Your task to perform on an android device: Show me the alarms in the clock app Image 0: 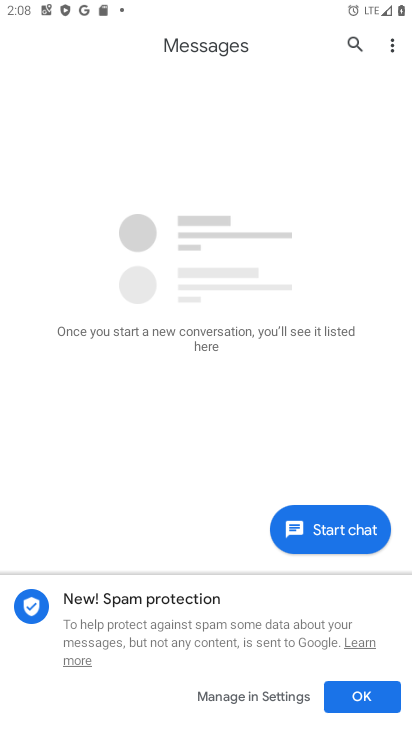
Step 0: press home button
Your task to perform on an android device: Show me the alarms in the clock app Image 1: 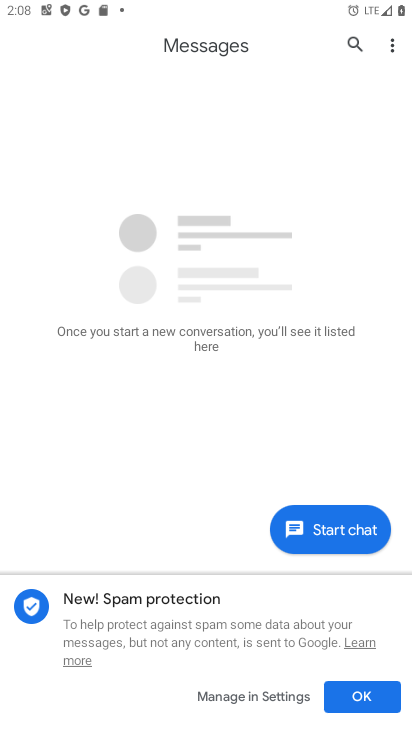
Step 1: click (170, 362)
Your task to perform on an android device: Show me the alarms in the clock app Image 2: 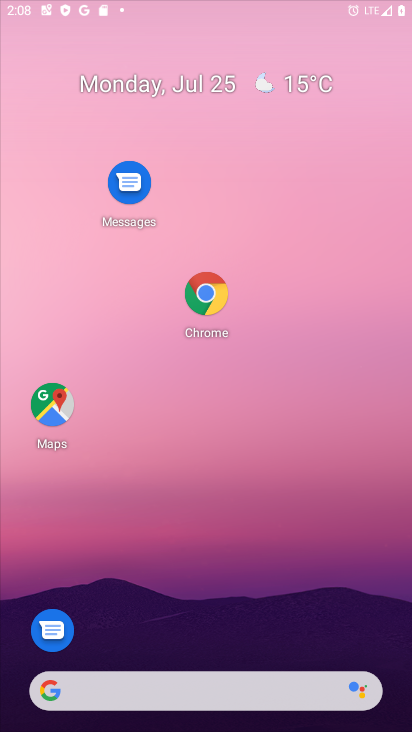
Step 2: drag from (255, 490) to (212, 185)
Your task to perform on an android device: Show me the alarms in the clock app Image 3: 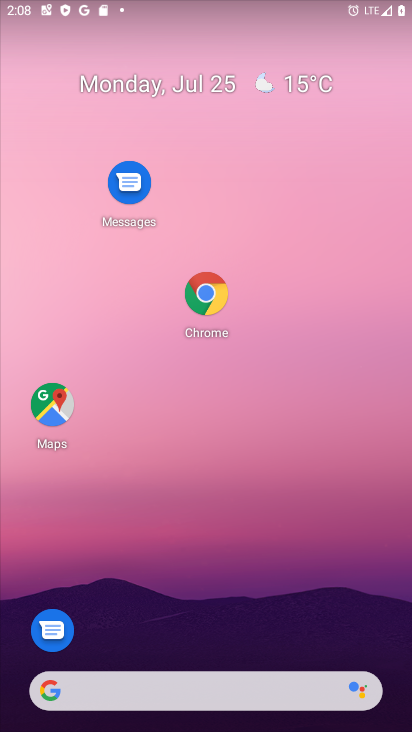
Step 3: drag from (264, 658) to (255, 282)
Your task to perform on an android device: Show me the alarms in the clock app Image 4: 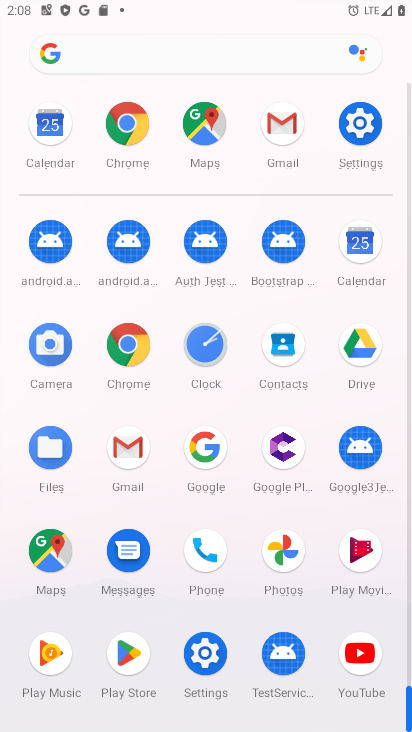
Step 4: click (194, 358)
Your task to perform on an android device: Show me the alarms in the clock app Image 5: 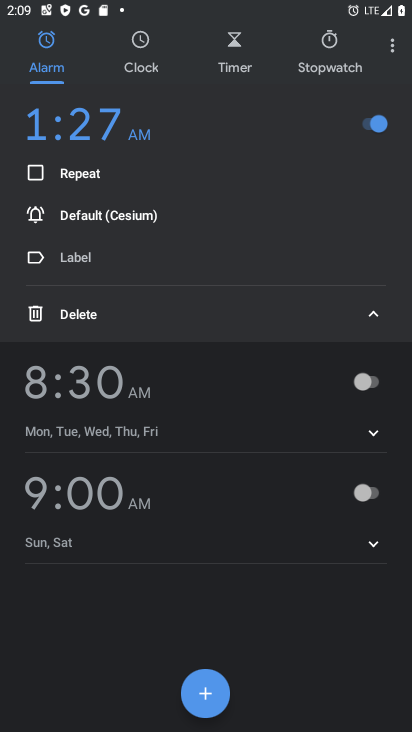
Step 5: task complete